Your task to perform on an android device: Open the Play Movies app and select the watchlist tab. Image 0: 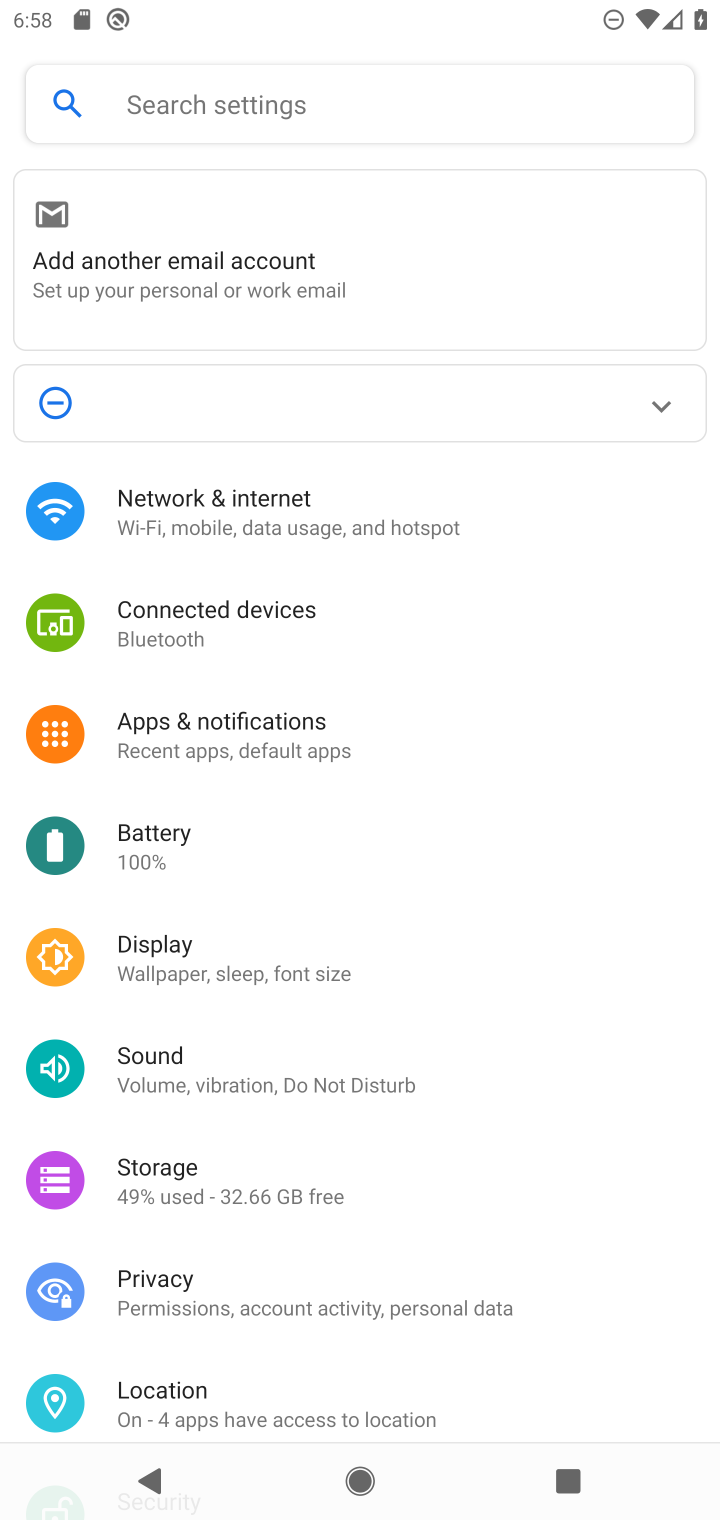
Step 0: press home button
Your task to perform on an android device: Open the Play Movies app and select the watchlist tab. Image 1: 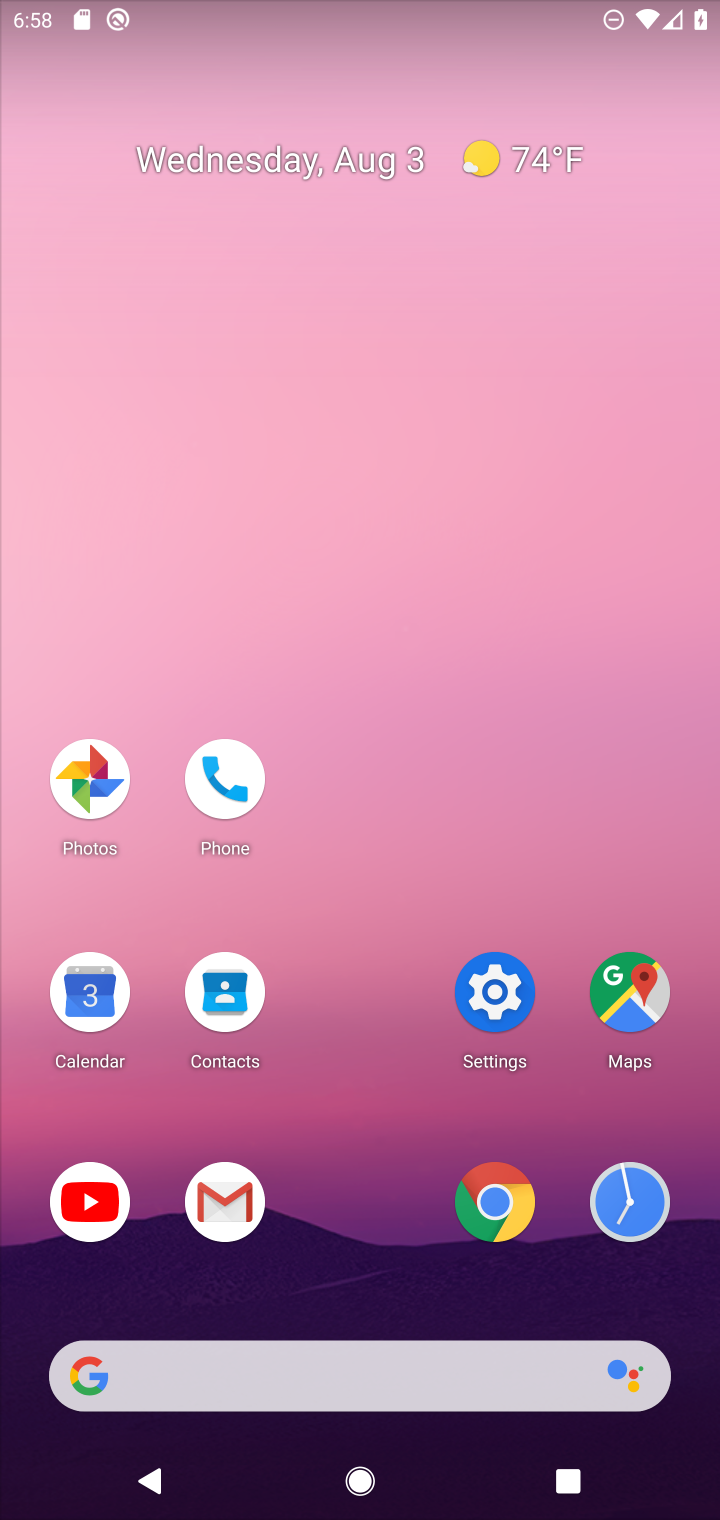
Step 1: drag from (372, 1210) to (373, 71)
Your task to perform on an android device: Open the Play Movies app and select the watchlist tab. Image 2: 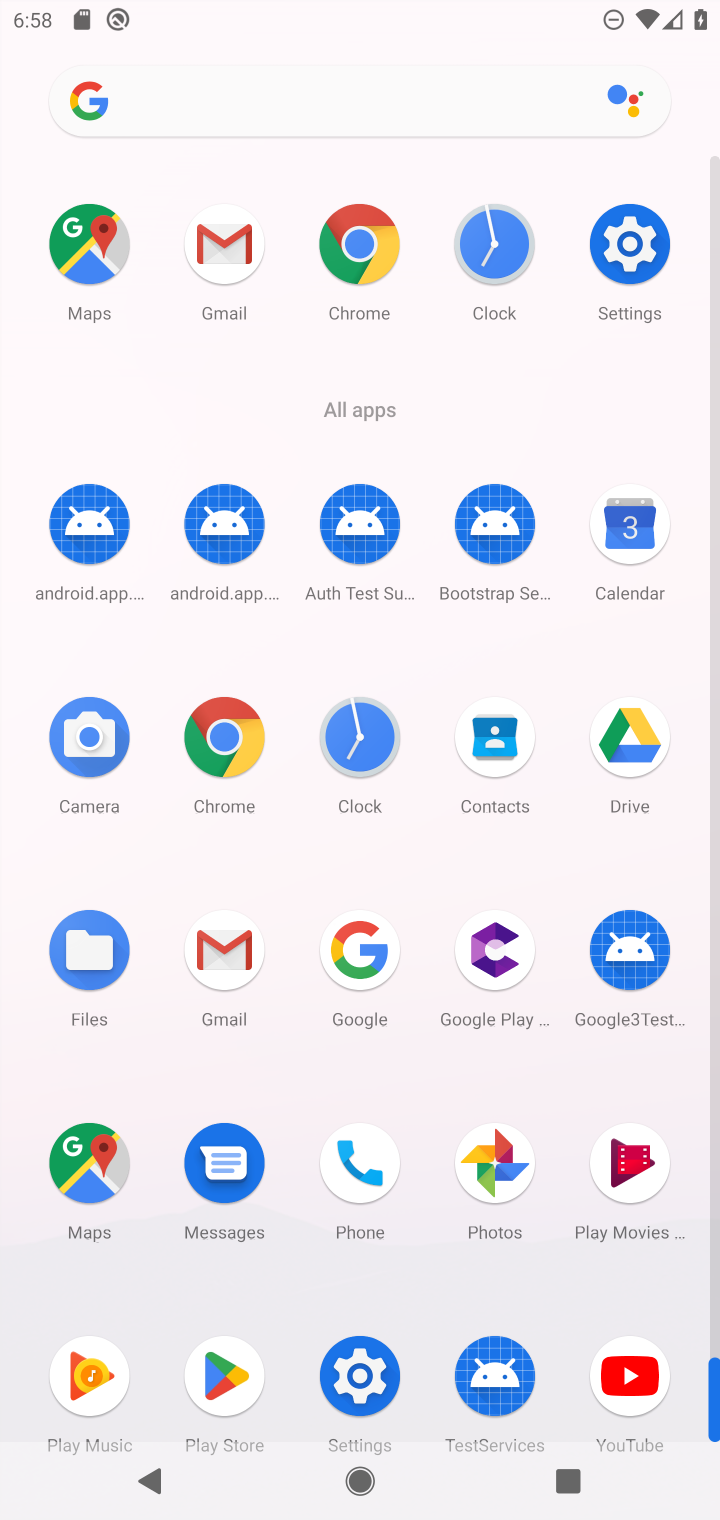
Step 2: click (631, 1164)
Your task to perform on an android device: Open the Play Movies app and select the watchlist tab. Image 3: 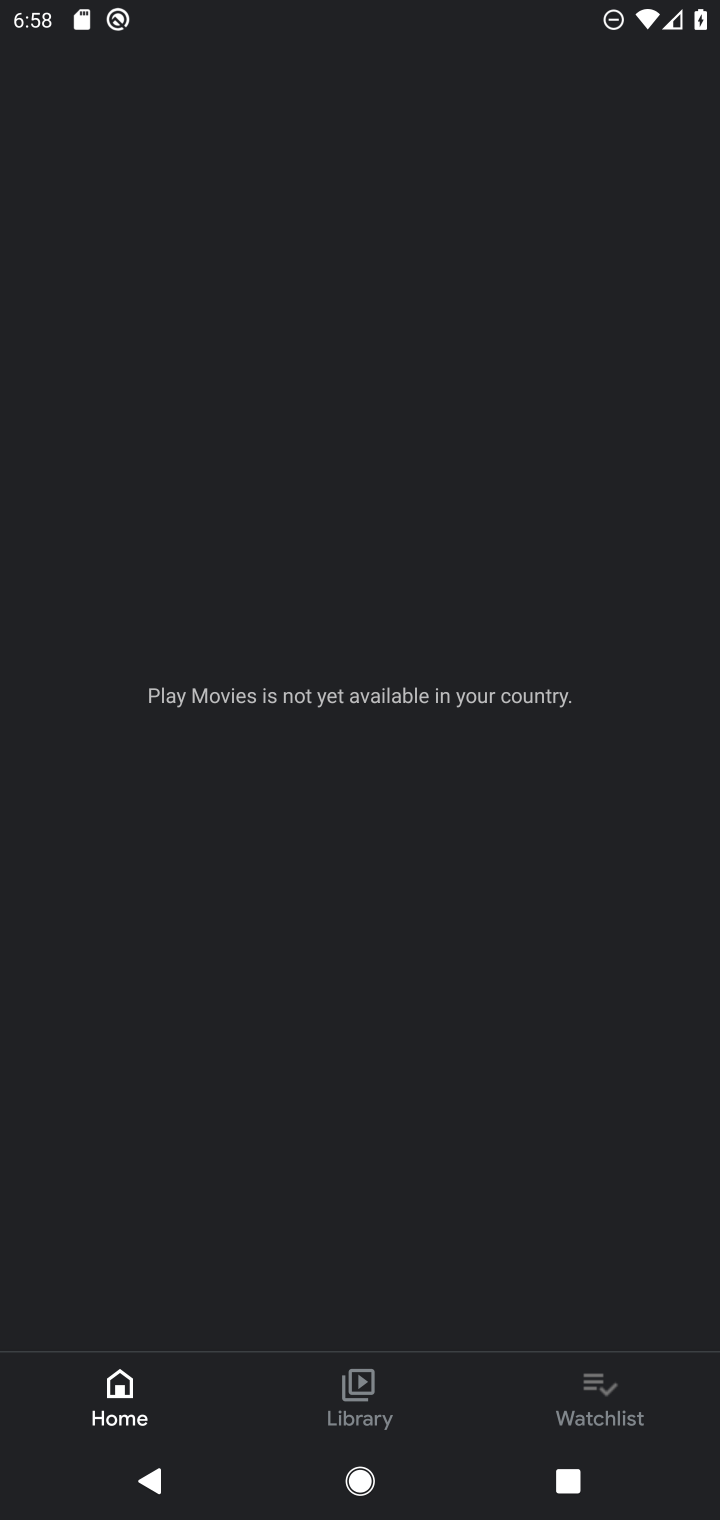
Step 3: click (600, 1386)
Your task to perform on an android device: Open the Play Movies app and select the watchlist tab. Image 4: 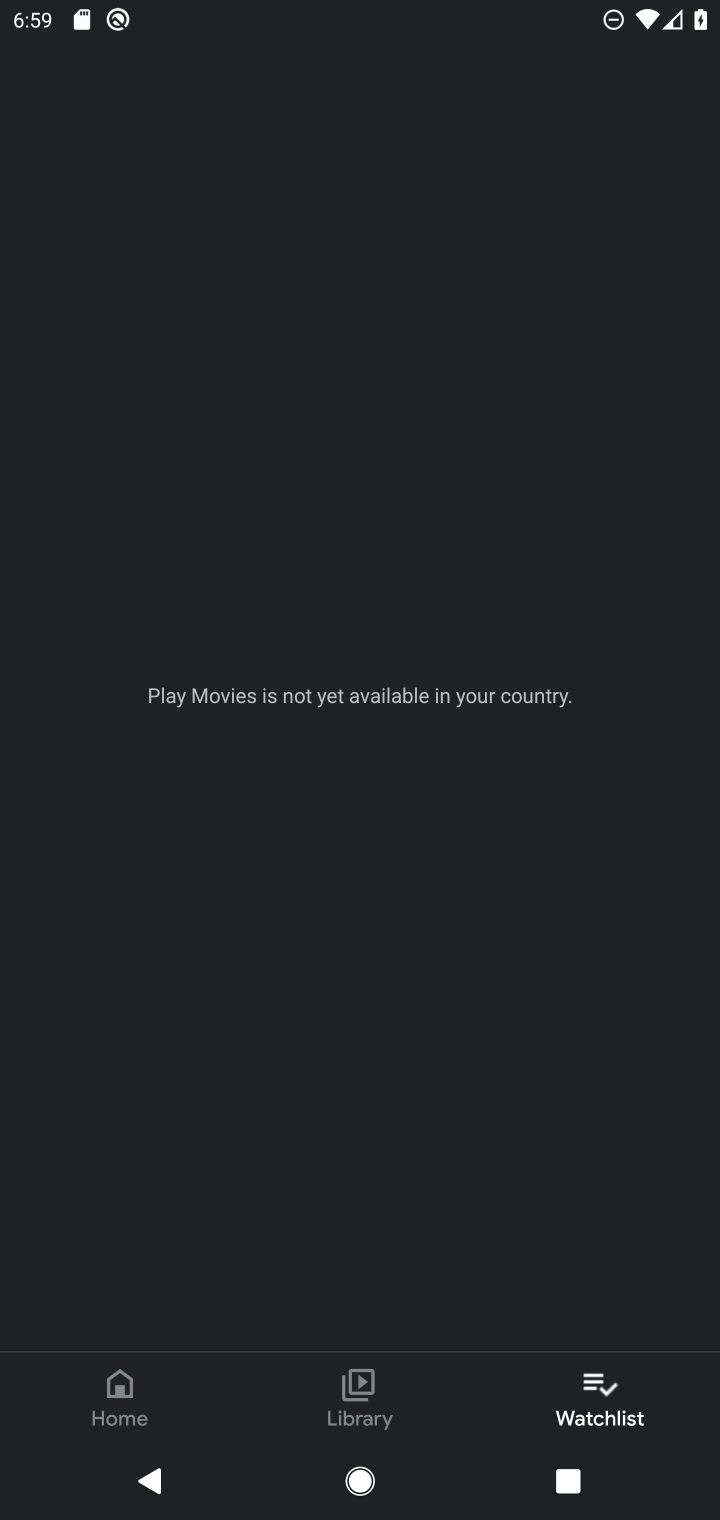
Step 4: task complete